Your task to perform on an android device: change timer sound Image 0: 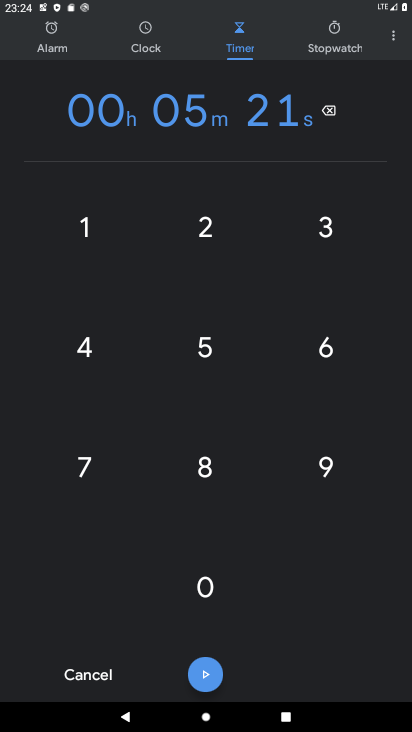
Step 0: press home button
Your task to perform on an android device: change timer sound Image 1: 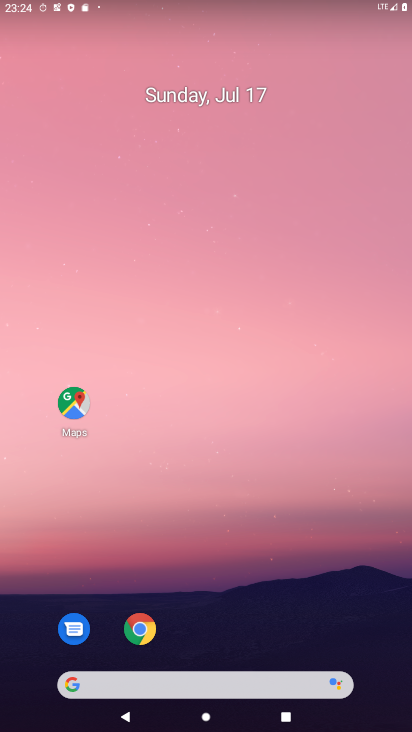
Step 1: drag from (229, 724) to (235, 65)
Your task to perform on an android device: change timer sound Image 2: 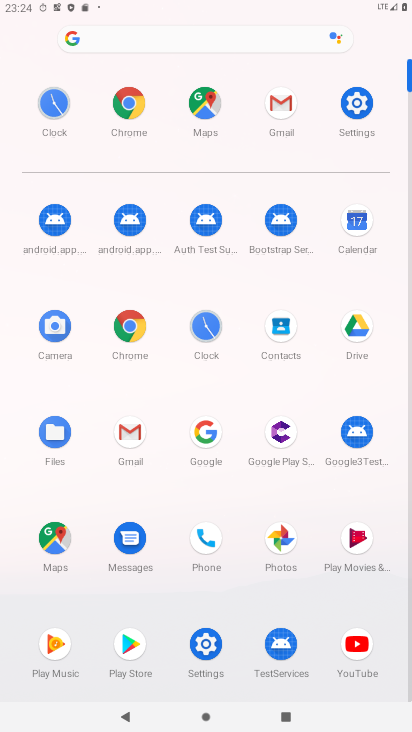
Step 2: click (204, 332)
Your task to perform on an android device: change timer sound Image 3: 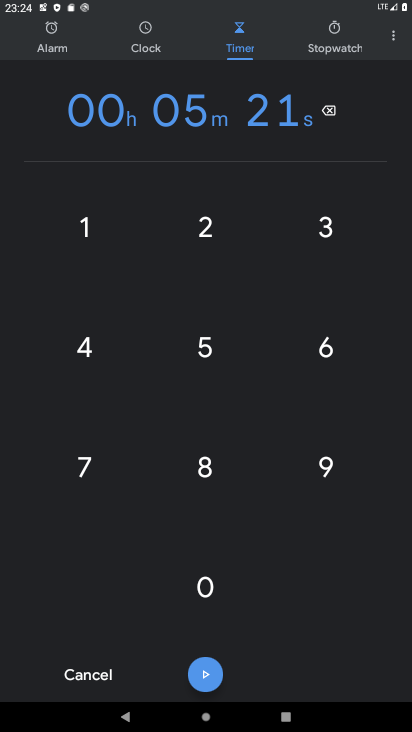
Step 3: click (391, 35)
Your task to perform on an android device: change timer sound Image 4: 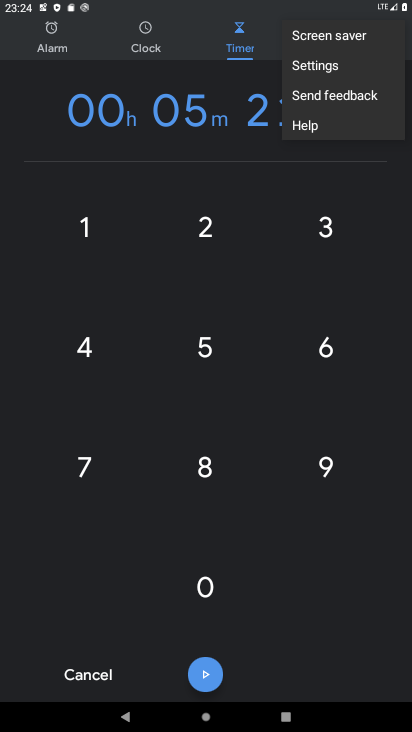
Step 4: click (314, 69)
Your task to perform on an android device: change timer sound Image 5: 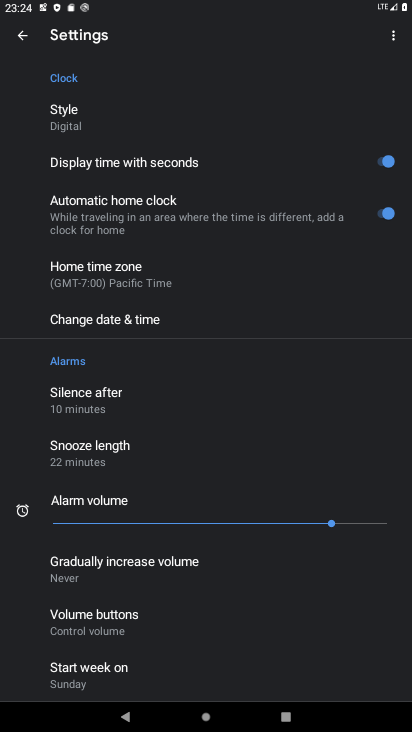
Step 5: drag from (204, 662) to (188, 223)
Your task to perform on an android device: change timer sound Image 6: 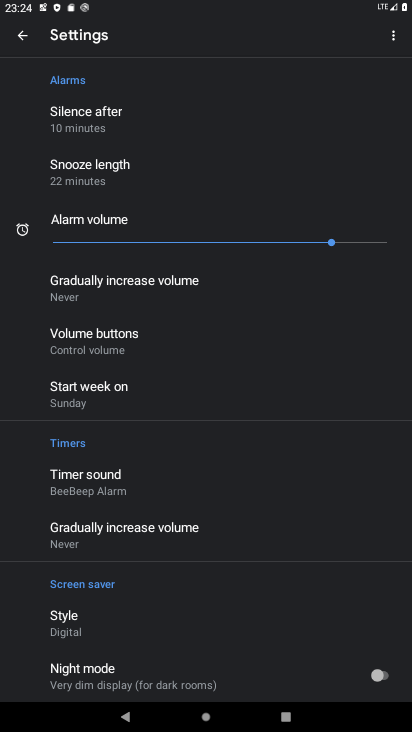
Step 6: click (96, 480)
Your task to perform on an android device: change timer sound Image 7: 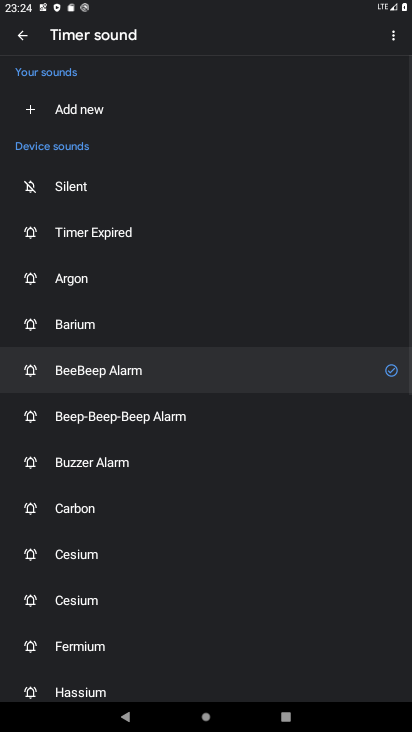
Step 7: click (70, 599)
Your task to perform on an android device: change timer sound Image 8: 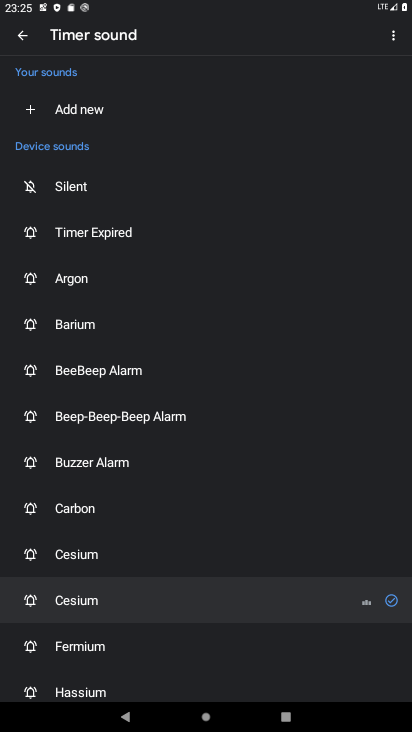
Step 8: task complete